Your task to perform on an android device: turn notification dots off Image 0: 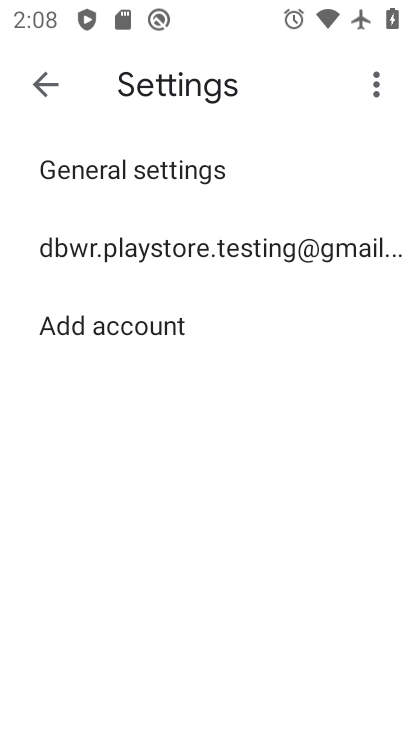
Step 0: press home button
Your task to perform on an android device: turn notification dots off Image 1: 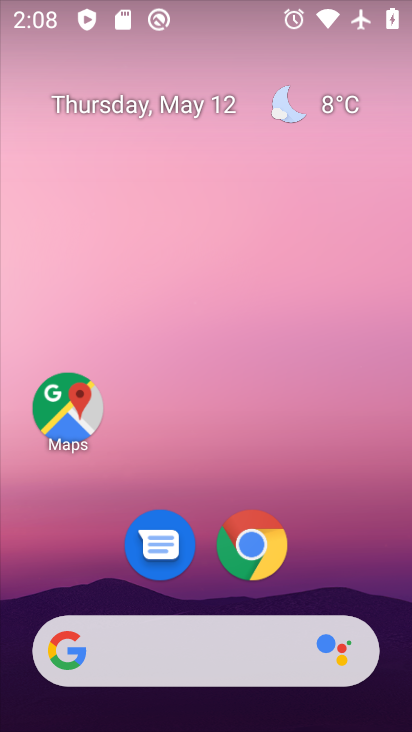
Step 1: drag from (389, 592) to (265, 153)
Your task to perform on an android device: turn notification dots off Image 2: 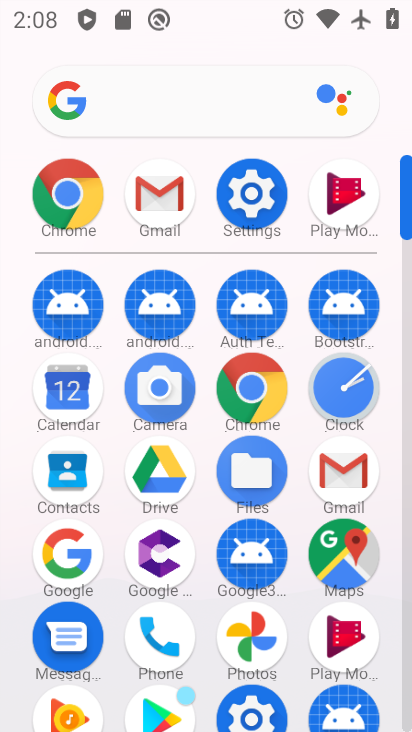
Step 2: click (409, 704)
Your task to perform on an android device: turn notification dots off Image 3: 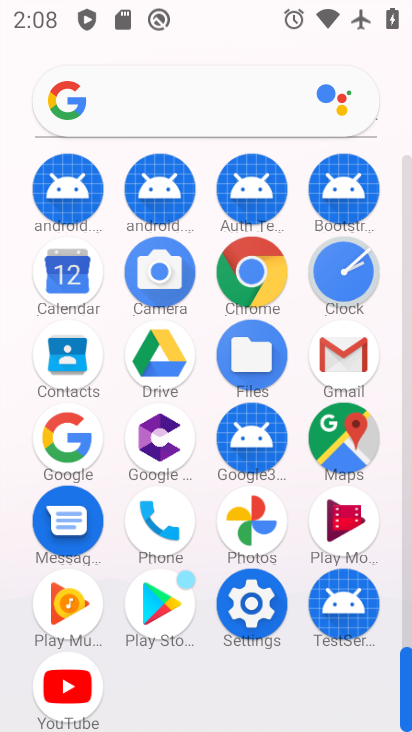
Step 3: click (255, 601)
Your task to perform on an android device: turn notification dots off Image 4: 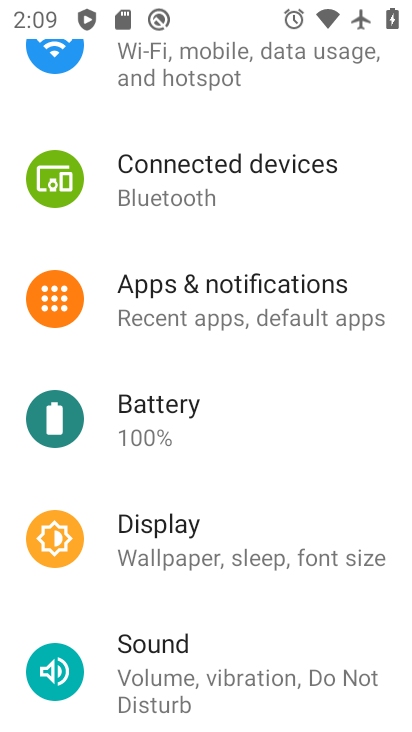
Step 4: click (199, 279)
Your task to perform on an android device: turn notification dots off Image 5: 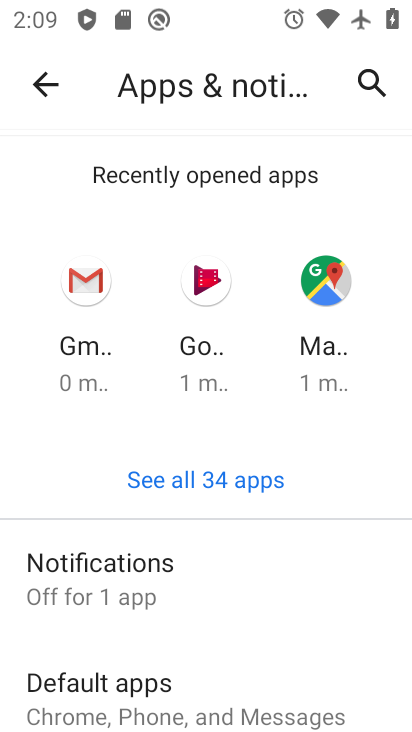
Step 5: click (134, 572)
Your task to perform on an android device: turn notification dots off Image 6: 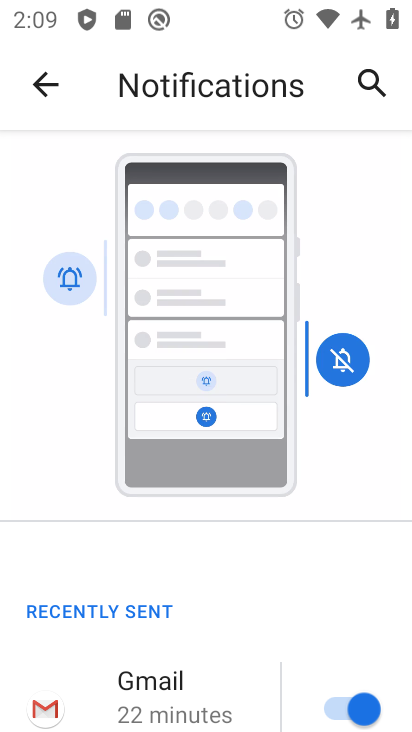
Step 6: drag from (296, 631) to (175, 179)
Your task to perform on an android device: turn notification dots off Image 7: 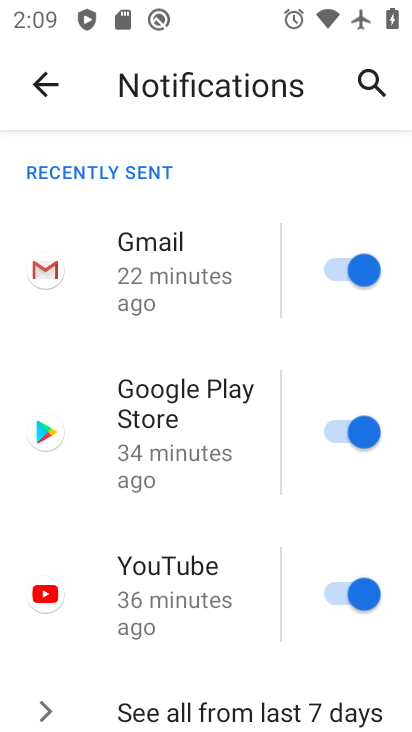
Step 7: drag from (285, 660) to (201, 280)
Your task to perform on an android device: turn notification dots off Image 8: 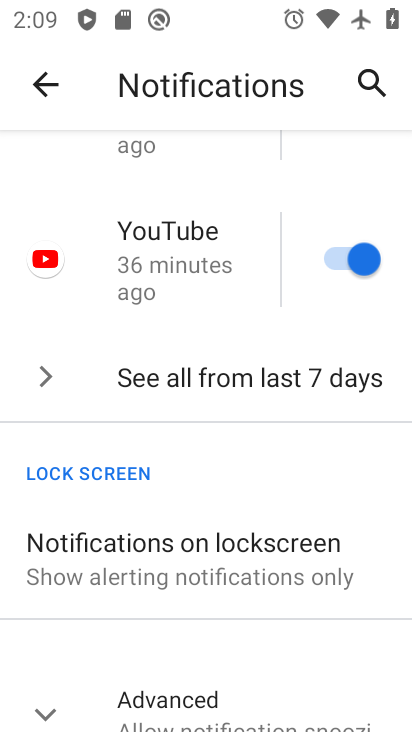
Step 8: click (53, 701)
Your task to perform on an android device: turn notification dots off Image 9: 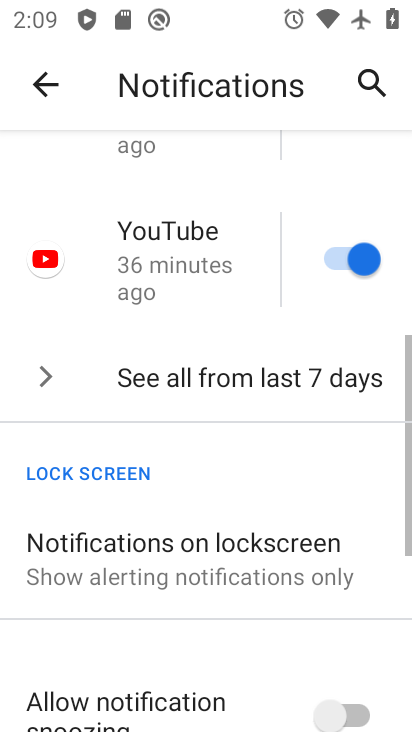
Step 9: drag from (294, 602) to (227, 182)
Your task to perform on an android device: turn notification dots off Image 10: 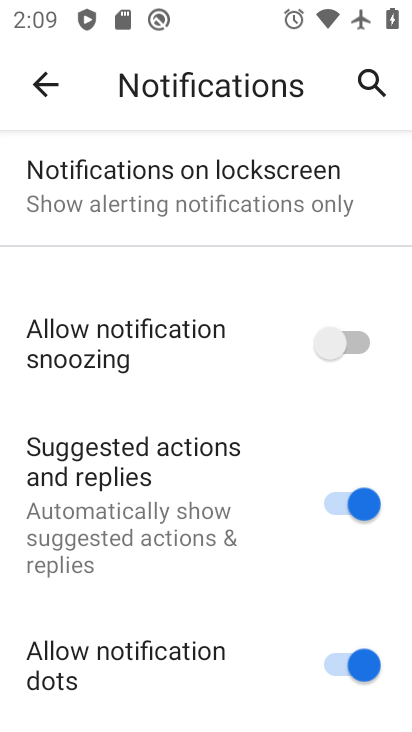
Step 10: click (342, 655)
Your task to perform on an android device: turn notification dots off Image 11: 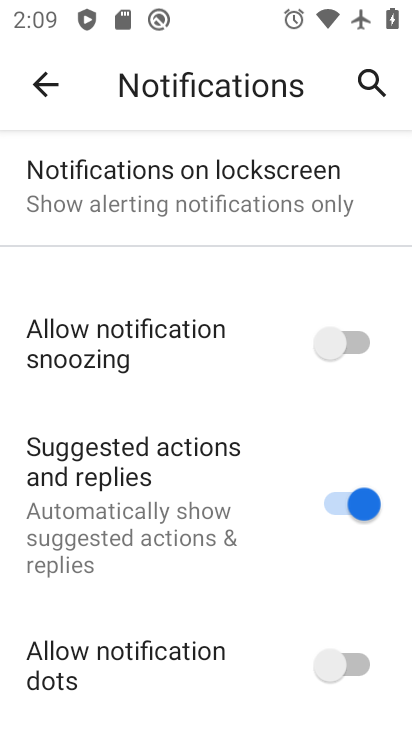
Step 11: task complete